Your task to perform on an android device: What is the news today? Image 0: 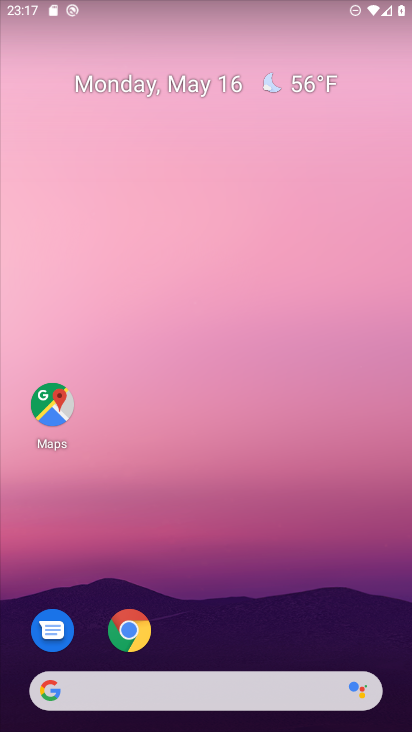
Step 0: click (252, 685)
Your task to perform on an android device: What is the news today? Image 1: 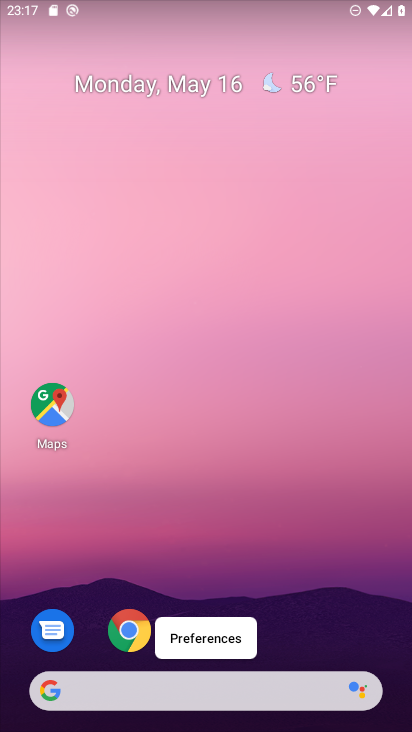
Step 1: click (221, 703)
Your task to perform on an android device: What is the news today? Image 2: 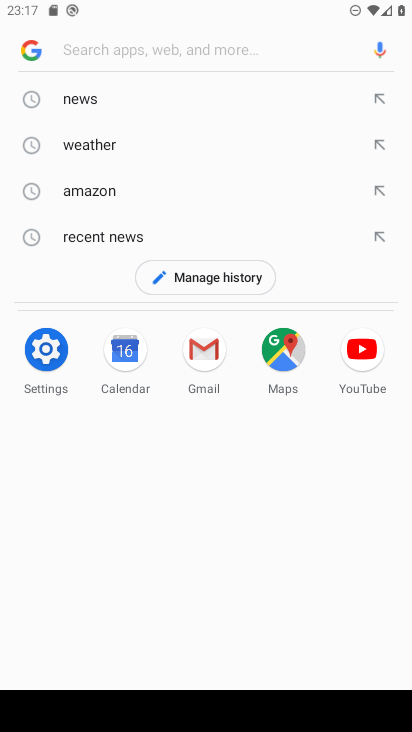
Step 2: click (81, 93)
Your task to perform on an android device: What is the news today? Image 3: 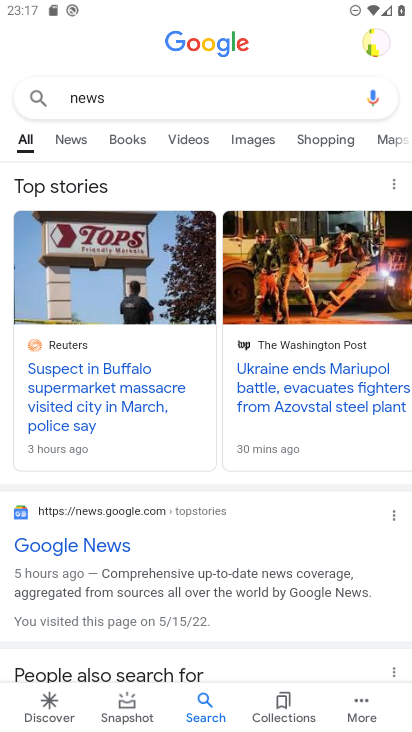
Step 3: task complete